Your task to perform on an android device: find which apps use the phone's location Image 0: 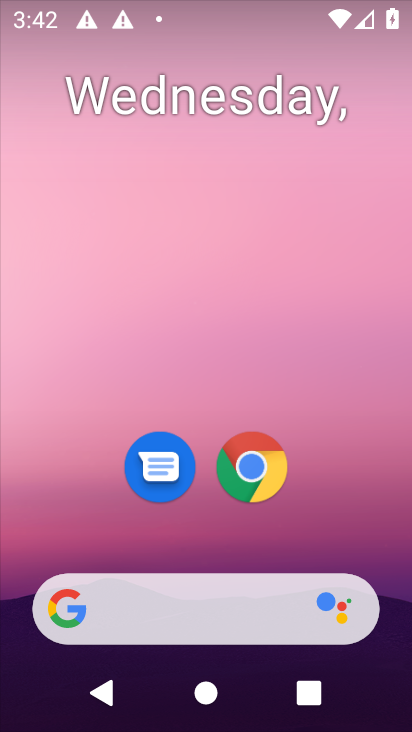
Step 0: drag from (13, 663) to (92, 322)
Your task to perform on an android device: find which apps use the phone's location Image 1: 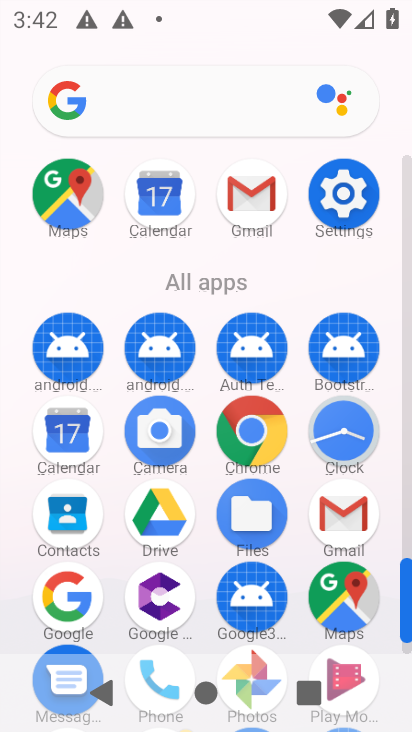
Step 1: click (344, 172)
Your task to perform on an android device: find which apps use the phone's location Image 2: 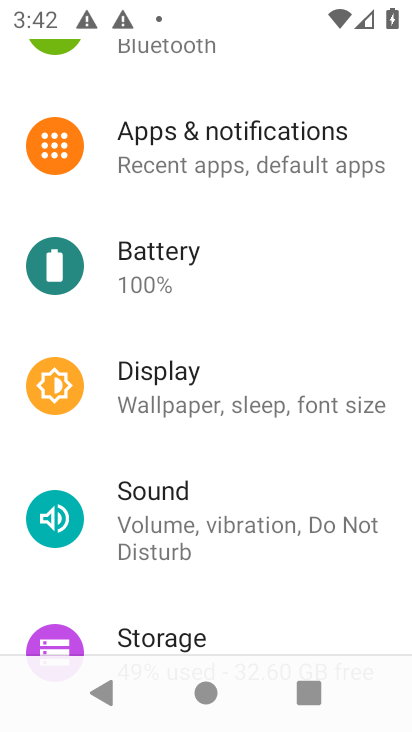
Step 2: drag from (320, 598) to (220, 115)
Your task to perform on an android device: find which apps use the phone's location Image 3: 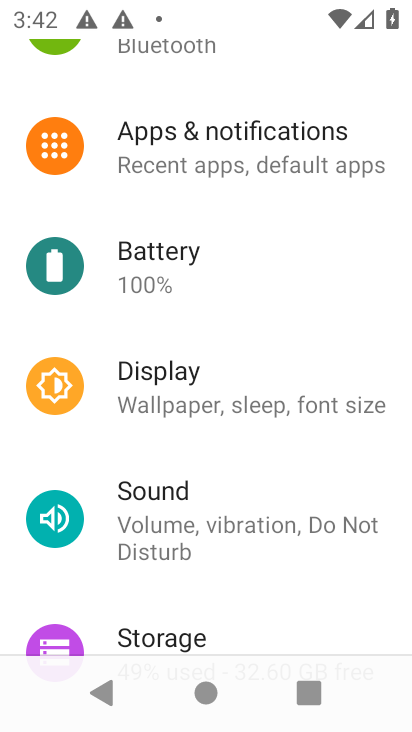
Step 3: drag from (281, 595) to (217, 121)
Your task to perform on an android device: find which apps use the phone's location Image 4: 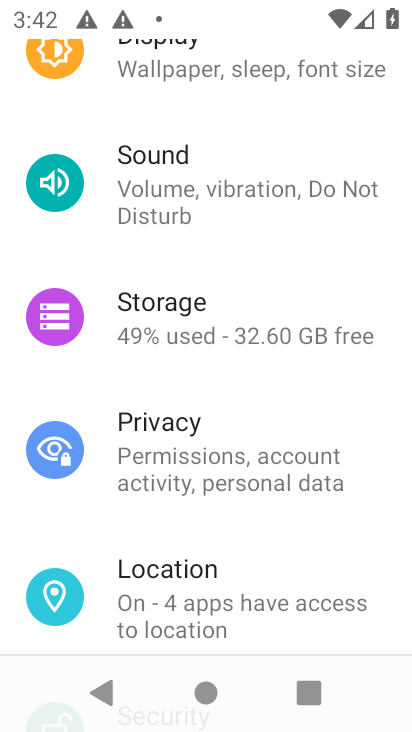
Step 4: drag from (369, 623) to (345, 382)
Your task to perform on an android device: find which apps use the phone's location Image 5: 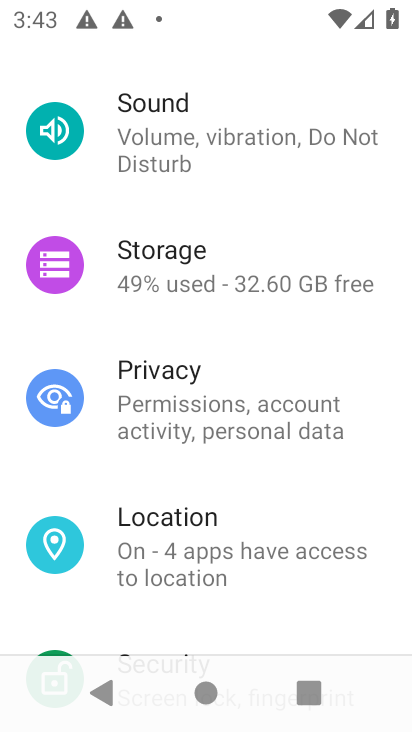
Step 5: click (205, 543)
Your task to perform on an android device: find which apps use the phone's location Image 6: 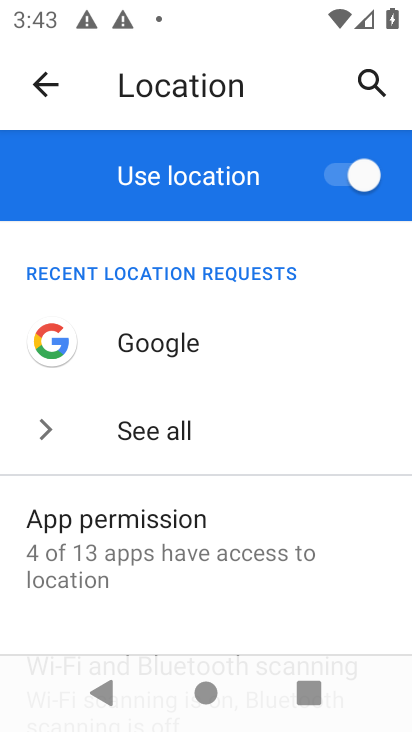
Step 6: drag from (355, 600) to (310, 278)
Your task to perform on an android device: find which apps use the phone's location Image 7: 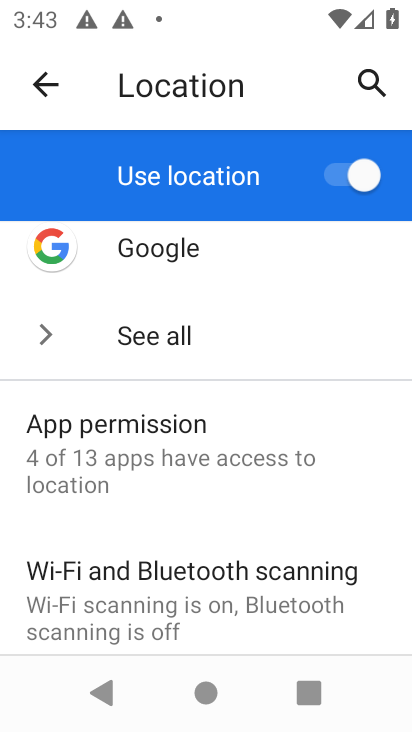
Step 7: drag from (379, 594) to (321, 275)
Your task to perform on an android device: find which apps use the phone's location Image 8: 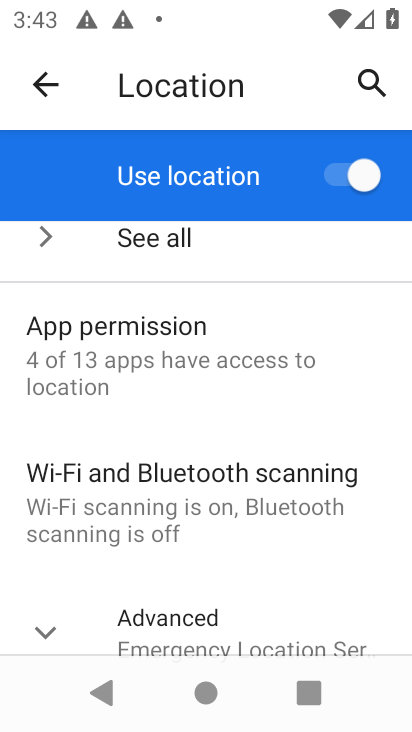
Step 8: click (190, 361)
Your task to perform on an android device: find which apps use the phone's location Image 9: 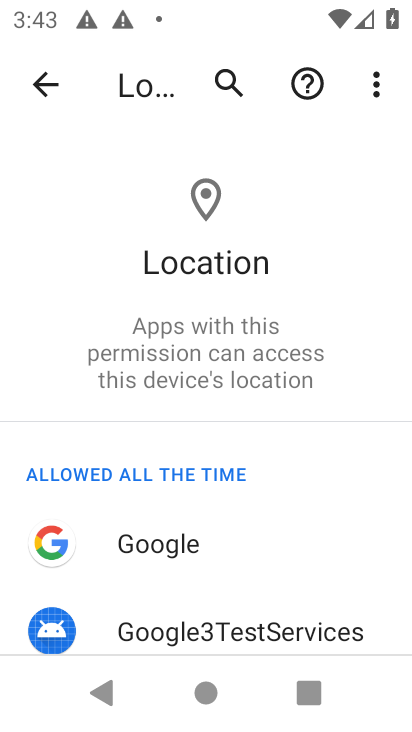
Step 9: task complete